Your task to perform on an android device: toggle wifi Image 0: 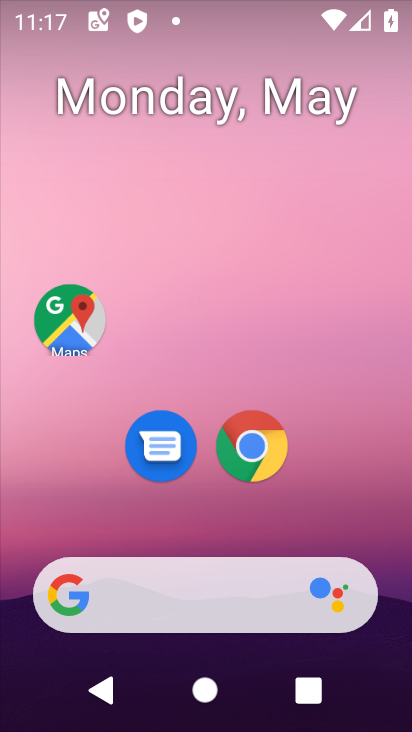
Step 0: drag from (294, 445) to (357, 31)
Your task to perform on an android device: toggle wifi Image 1: 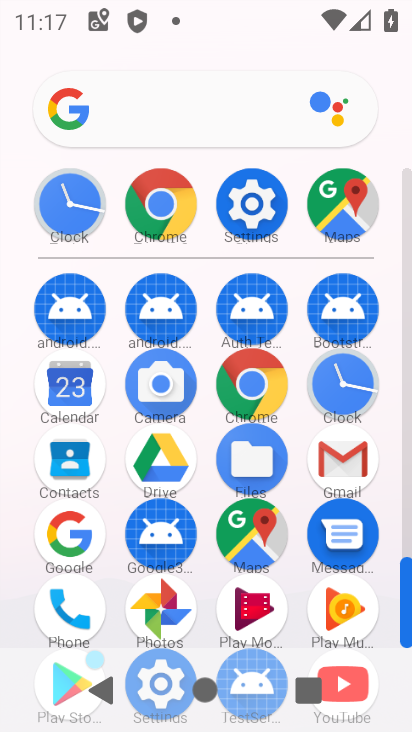
Step 1: click (242, 205)
Your task to perform on an android device: toggle wifi Image 2: 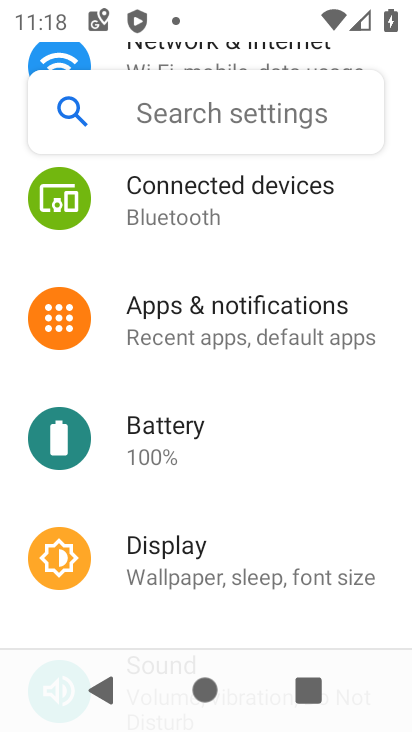
Step 2: drag from (174, 213) to (216, 625)
Your task to perform on an android device: toggle wifi Image 3: 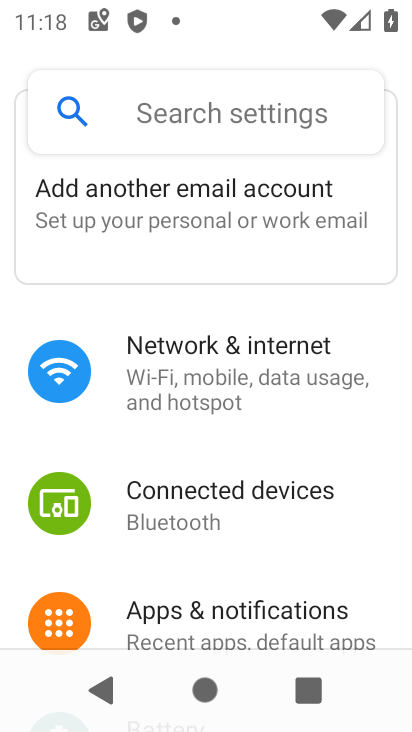
Step 3: click (185, 341)
Your task to perform on an android device: toggle wifi Image 4: 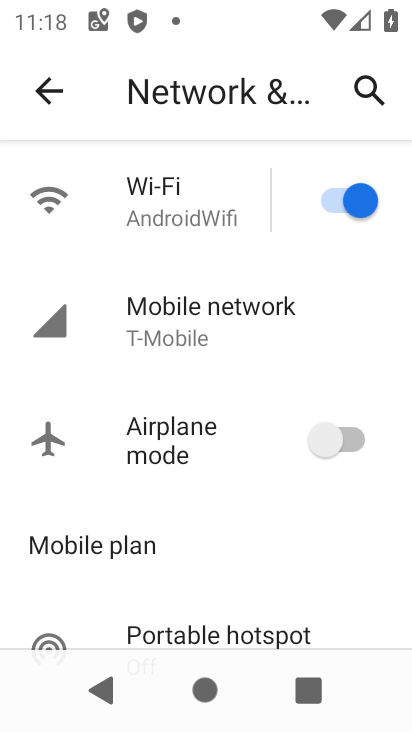
Step 4: click (315, 201)
Your task to perform on an android device: toggle wifi Image 5: 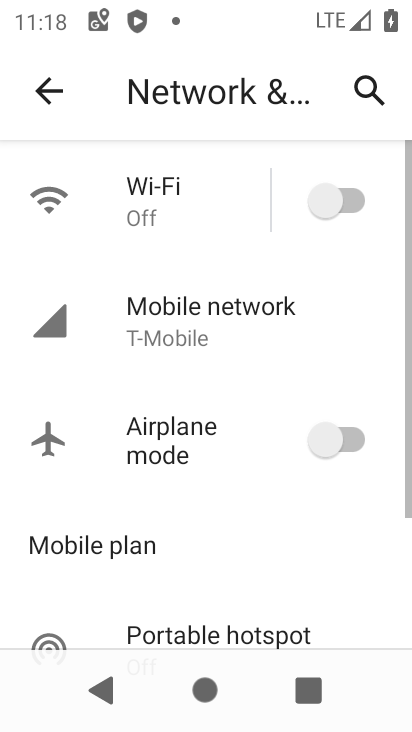
Step 5: task complete